Your task to perform on an android device: Check the weather Image 0: 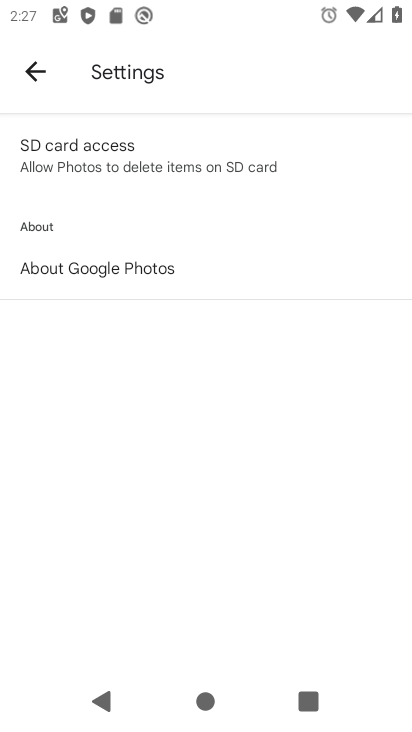
Step 0: press home button
Your task to perform on an android device: Check the weather Image 1: 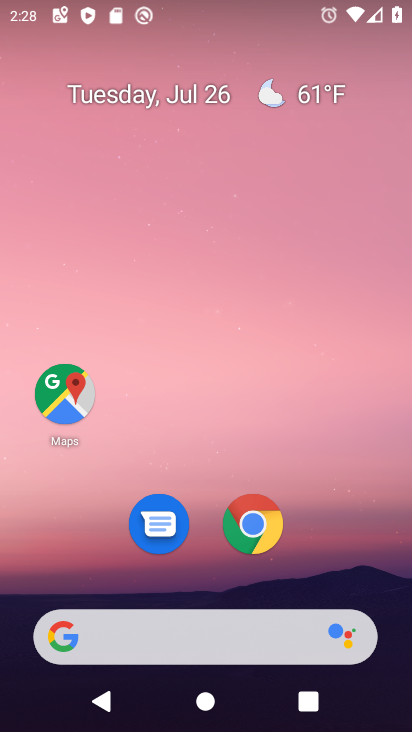
Step 1: click (161, 645)
Your task to perform on an android device: Check the weather Image 2: 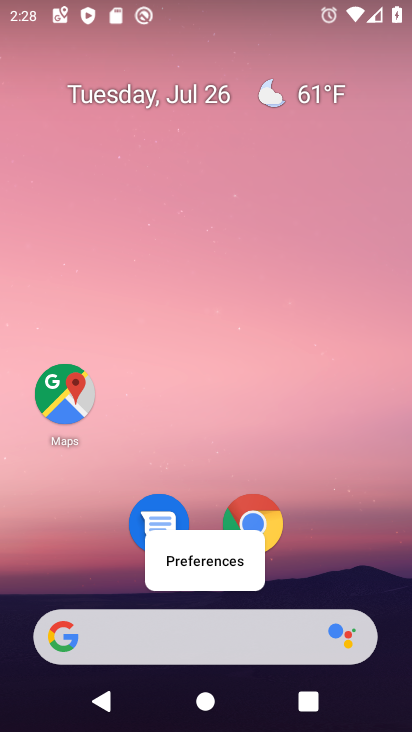
Step 2: click (134, 634)
Your task to perform on an android device: Check the weather Image 3: 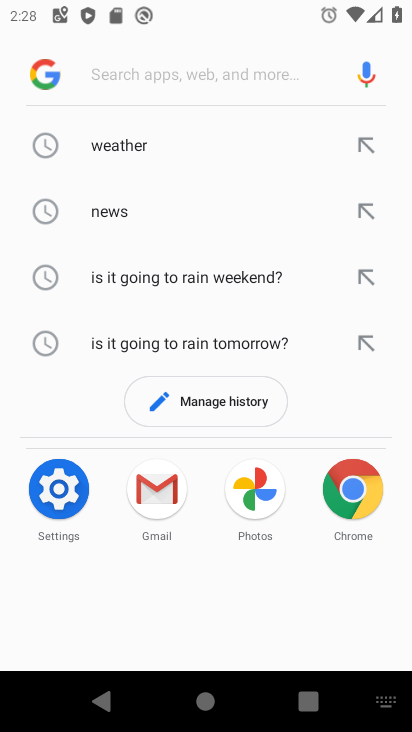
Step 3: click (123, 152)
Your task to perform on an android device: Check the weather Image 4: 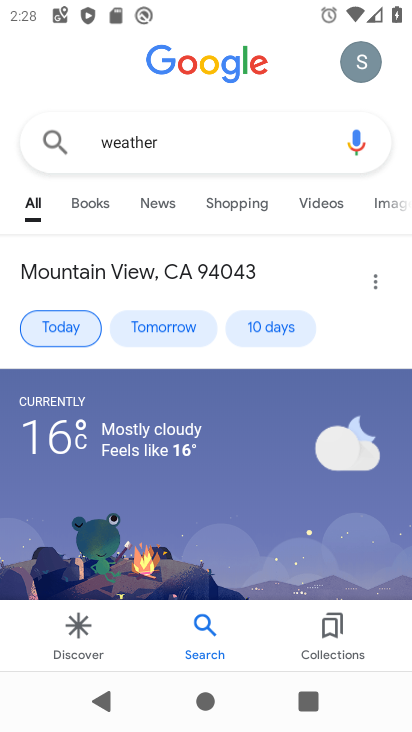
Step 4: task complete